Your task to perform on an android device: star an email in the gmail app Image 0: 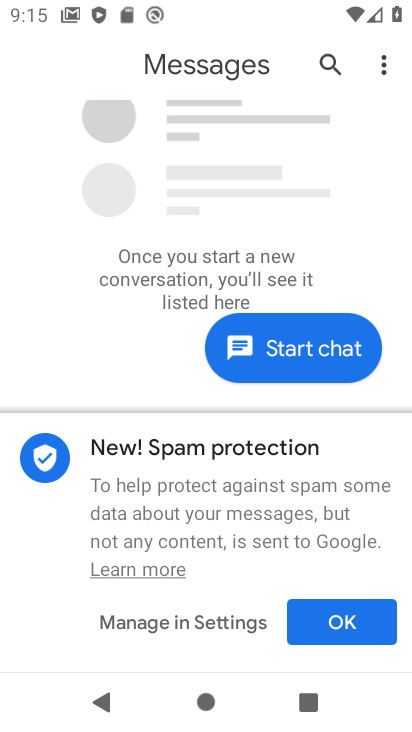
Step 0: press home button
Your task to perform on an android device: star an email in the gmail app Image 1: 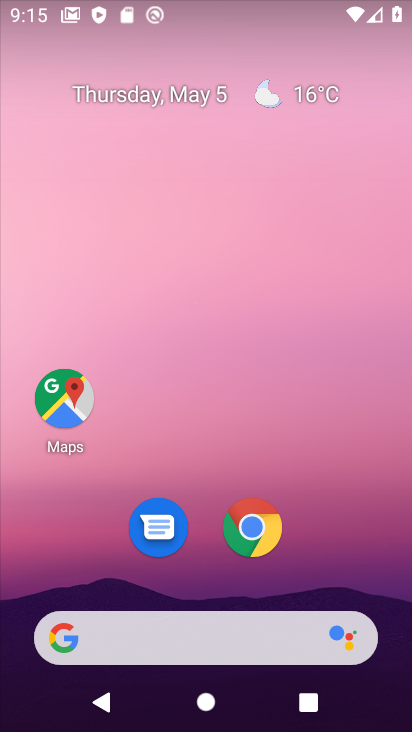
Step 1: drag from (197, 585) to (193, 51)
Your task to perform on an android device: star an email in the gmail app Image 2: 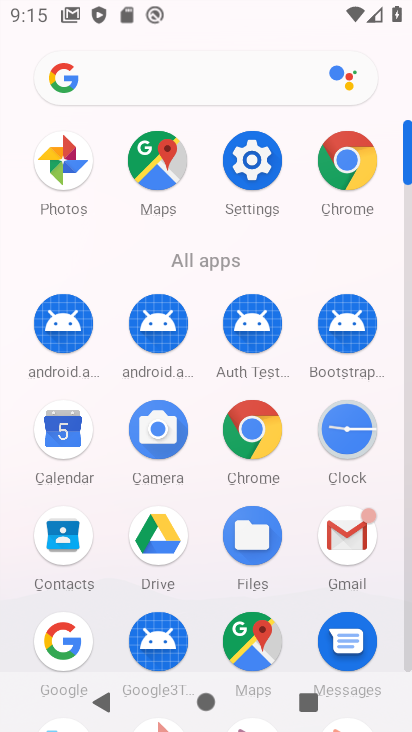
Step 2: click (345, 529)
Your task to perform on an android device: star an email in the gmail app Image 3: 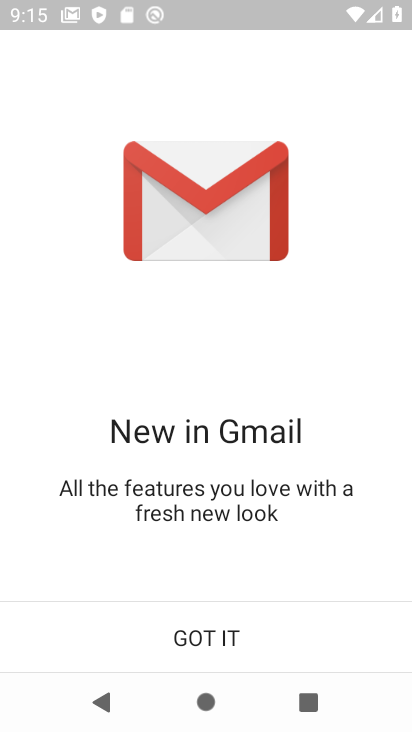
Step 3: click (215, 648)
Your task to perform on an android device: star an email in the gmail app Image 4: 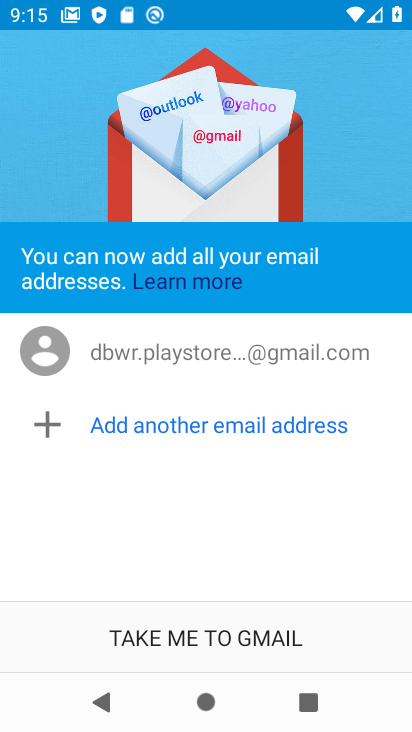
Step 4: click (215, 648)
Your task to perform on an android device: star an email in the gmail app Image 5: 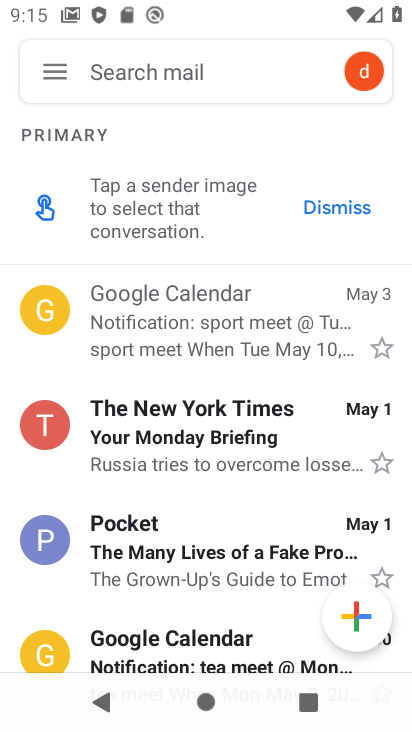
Step 5: click (375, 344)
Your task to perform on an android device: star an email in the gmail app Image 6: 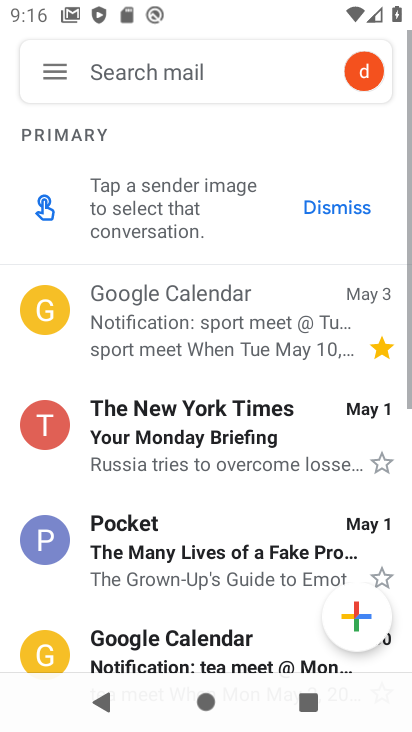
Step 6: task complete